Your task to perform on an android device: turn off location history Image 0: 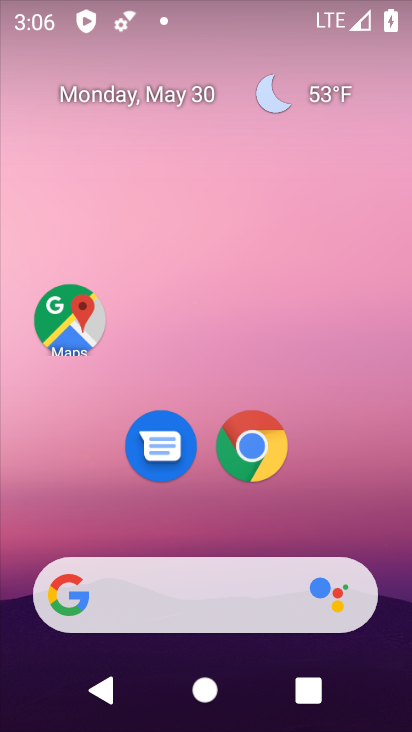
Step 0: drag from (326, 512) to (226, 66)
Your task to perform on an android device: turn off location history Image 1: 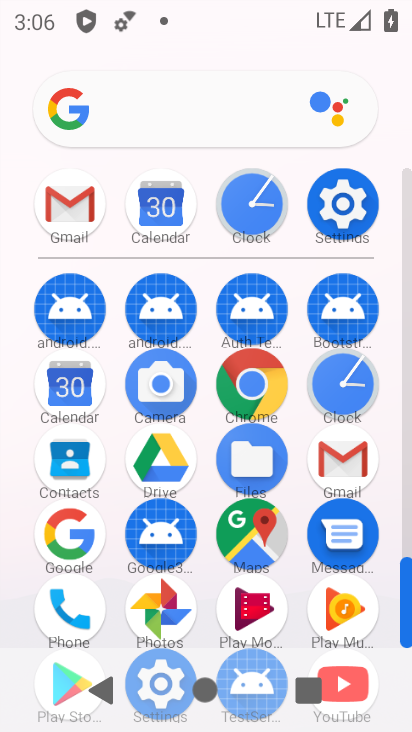
Step 1: click (347, 200)
Your task to perform on an android device: turn off location history Image 2: 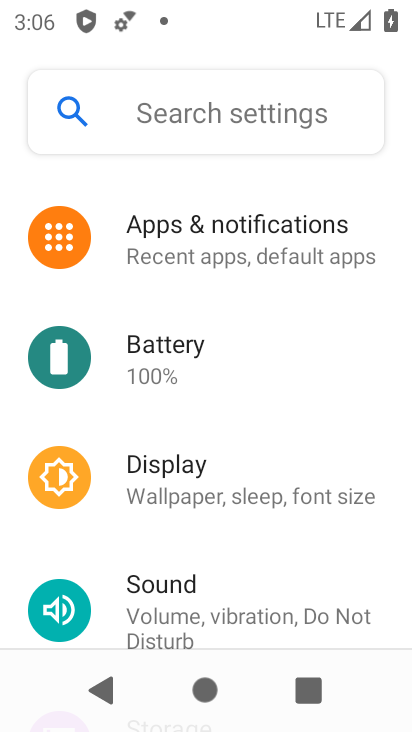
Step 2: drag from (252, 427) to (256, 294)
Your task to perform on an android device: turn off location history Image 3: 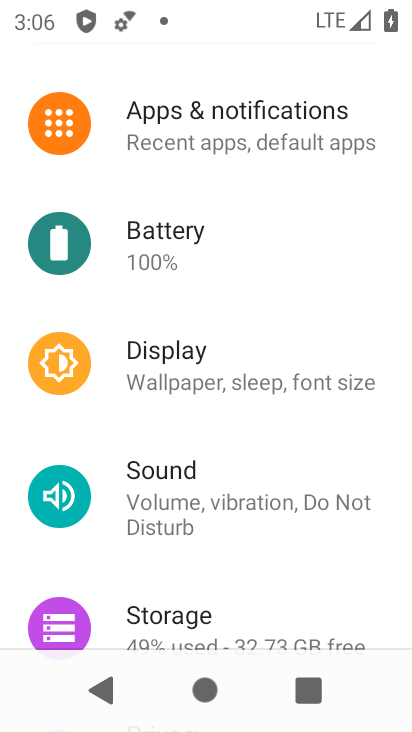
Step 3: drag from (200, 552) to (241, 361)
Your task to perform on an android device: turn off location history Image 4: 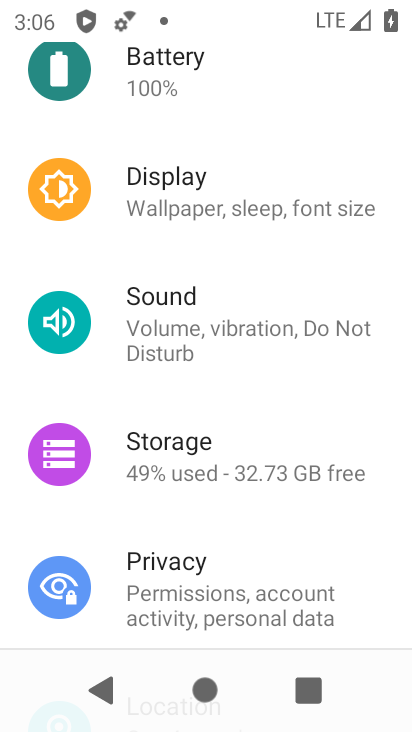
Step 4: drag from (241, 505) to (278, 327)
Your task to perform on an android device: turn off location history Image 5: 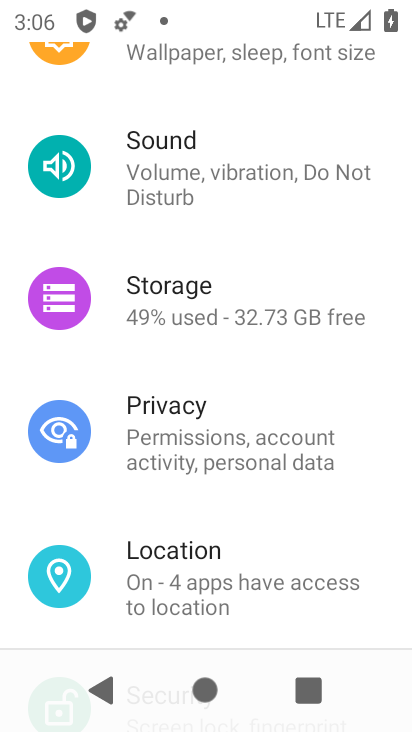
Step 5: drag from (241, 529) to (243, 366)
Your task to perform on an android device: turn off location history Image 6: 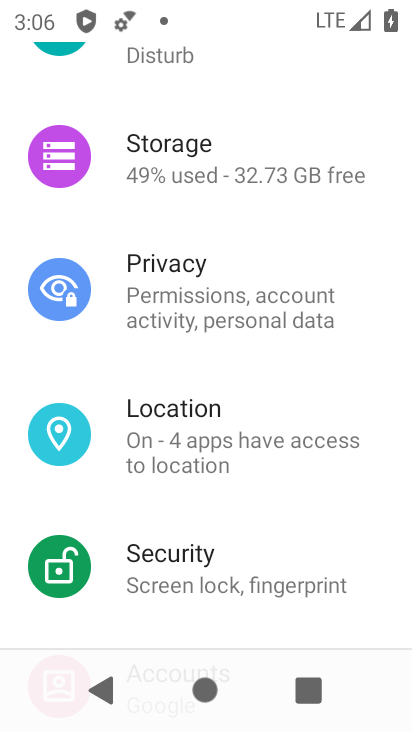
Step 6: click (247, 448)
Your task to perform on an android device: turn off location history Image 7: 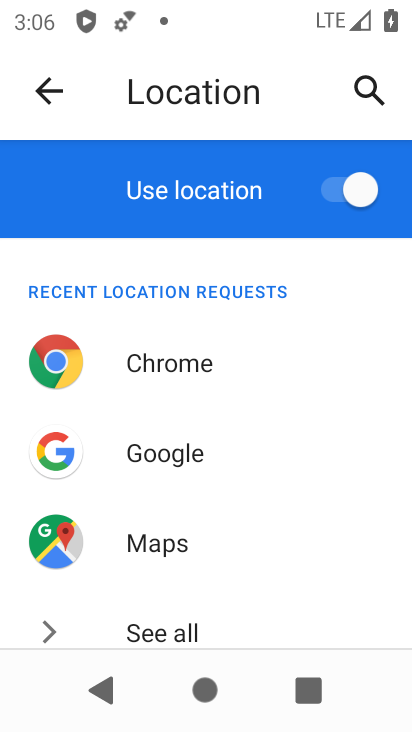
Step 7: drag from (244, 581) to (230, 395)
Your task to perform on an android device: turn off location history Image 8: 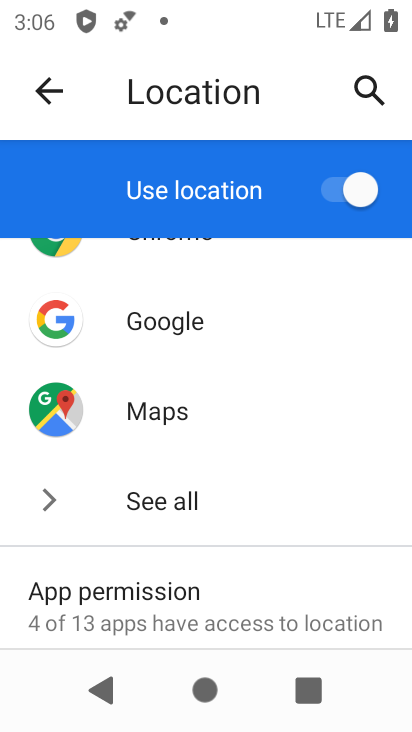
Step 8: drag from (251, 537) to (268, 311)
Your task to perform on an android device: turn off location history Image 9: 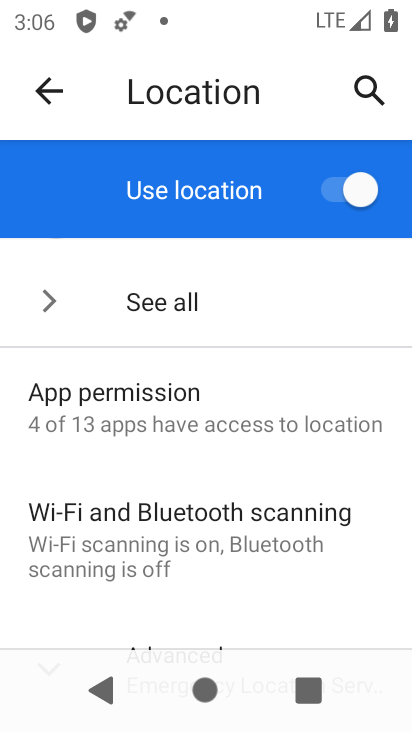
Step 9: drag from (210, 577) to (228, 313)
Your task to perform on an android device: turn off location history Image 10: 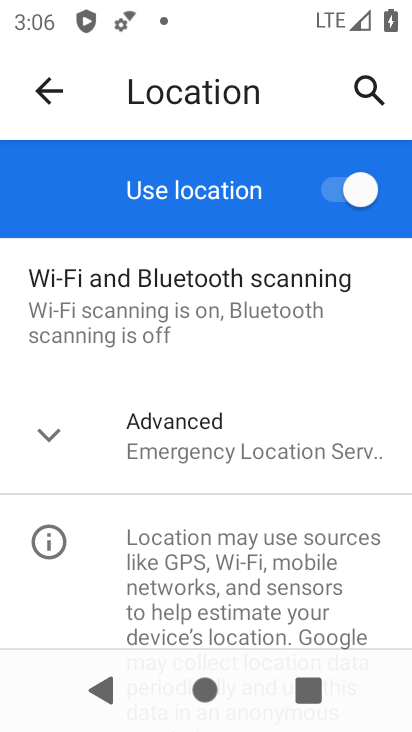
Step 10: click (274, 461)
Your task to perform on an android device: turn off location history Image 11: 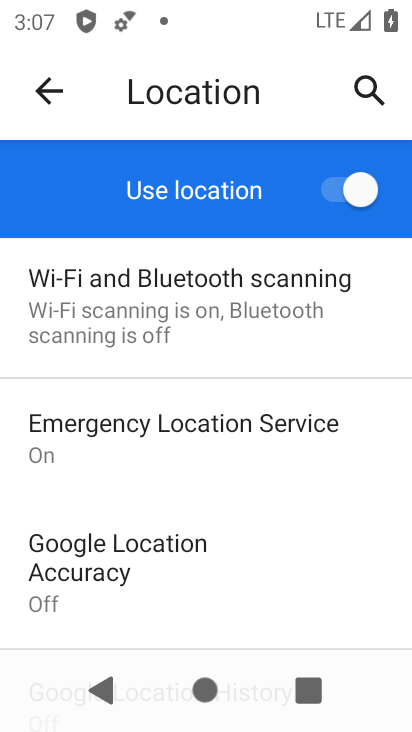
Step 11: task complete